Your task to perform on an android device: Open wifi settings Image 0: 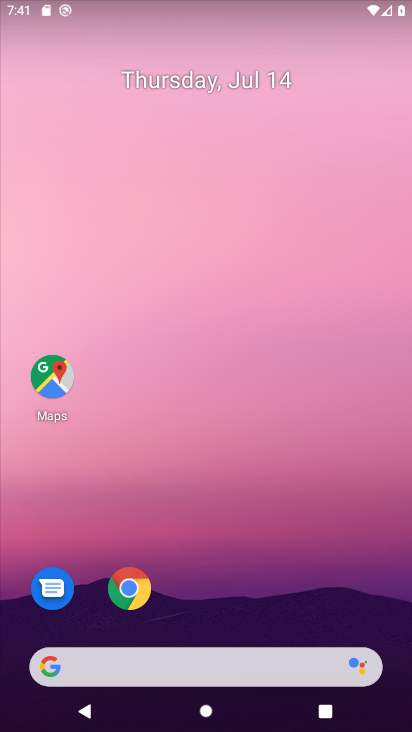
Step 0: drag from (292, 575) to (354, 44)
Your task to perform on an android device: Open wifi settings Image 1: 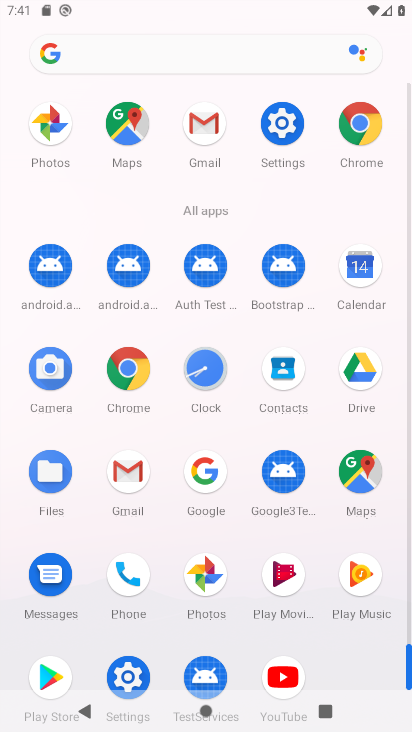
Step 1: click (285, 129)
Your task to perform on an android device: Open wifi settings Image 2: 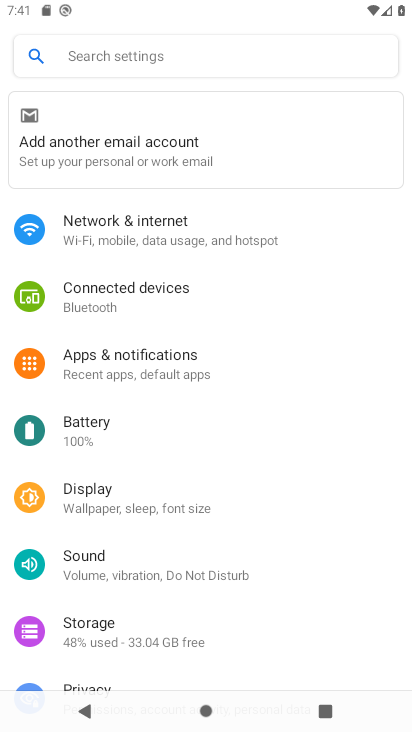
Step 2: drag from (335, 453) to (343, 381)
Your task to perform on an android device: Open wifi settings Image 3: 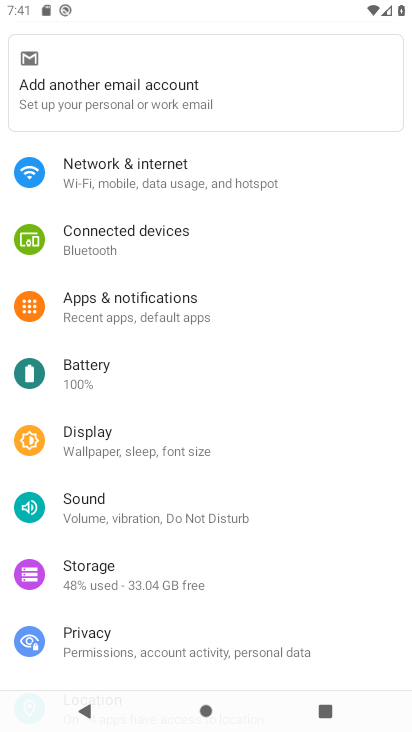
Step 3: drag from (335, 501) to (336, 409)
Your task to perform on an android device: Open wifi settings Image 4: 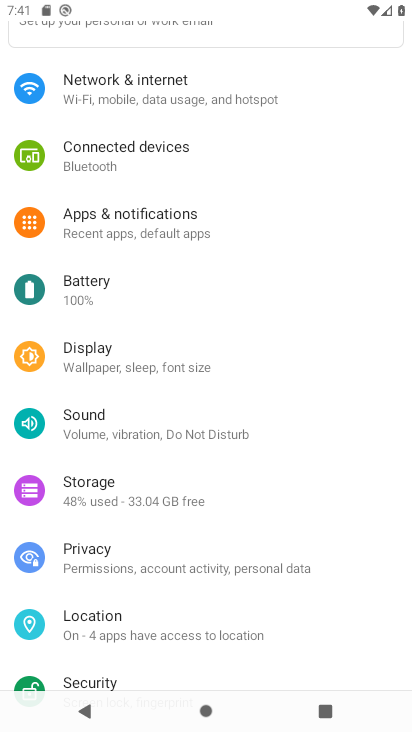
Step 4: drag from (334, 514) to (339, 420)
Your task to perform on an android device: Open wifi settings Image 5: 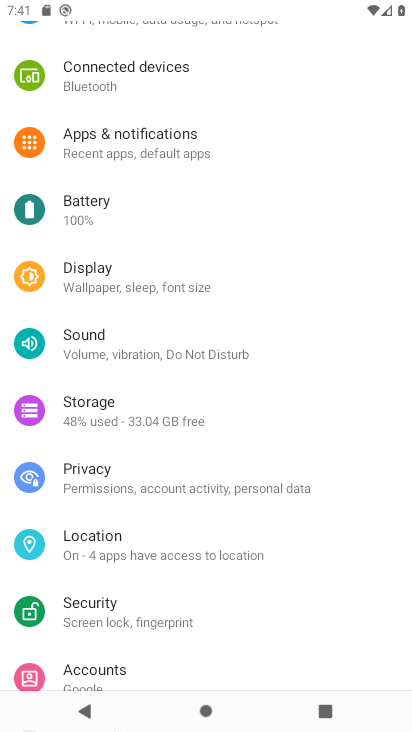
Step 5: drag from (354, 511) to (357, 408)
Your task to perform on an android device: Open wifi settings Image 6: 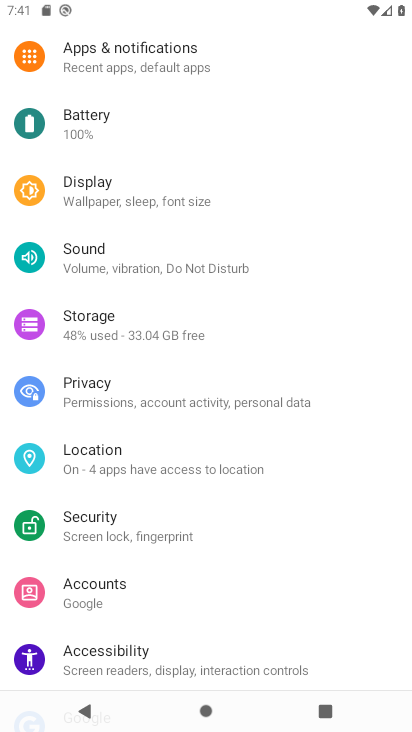
Step 6: drag from (330, 534) to (341, 426)
Your task to perform on an android device: Open wifi settings Image 7: 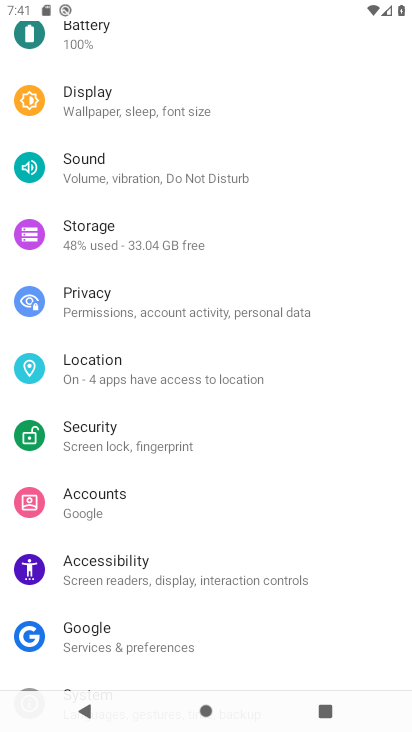
Step 7: drag from (332, 511) to (340, 365)
Your task to perform on an android device: Open wifi settings Image 8: 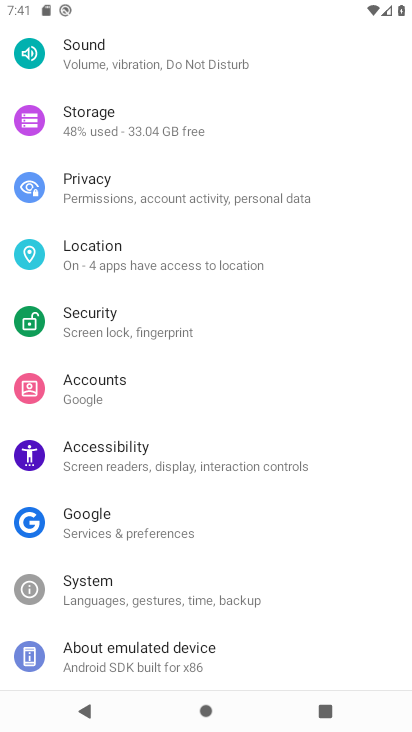
Step 8: drag from (330, 545) to (338, 457)
Your task to perform on an android device: Open wifi settings Image 9: 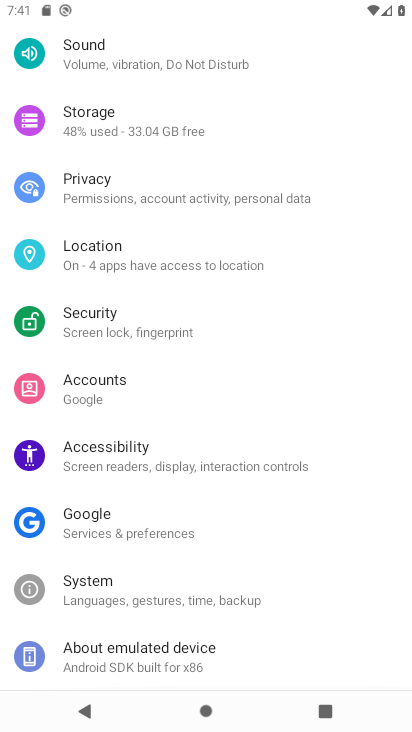
Step 9: drag from (345, 378) to (342, 446)
Your task to perform on an android device: Open wifi settings Image 10: 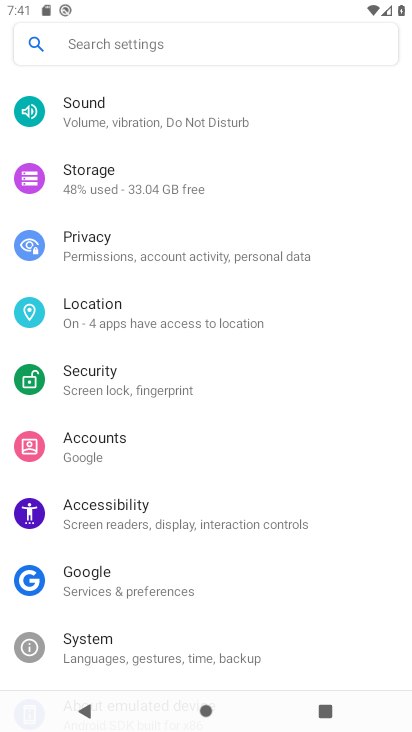
Step 10: drag from (338, 359) to (338, 409)
Your task to perform on an android device: Open wifi settings Image 11: 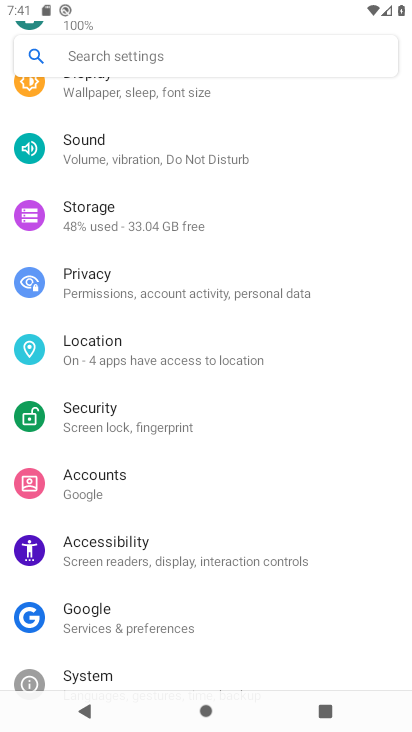
Step 11: drag from (338, 361) to (341, 404)
Your task to perform on an android device: Open wifi settings Image 12: 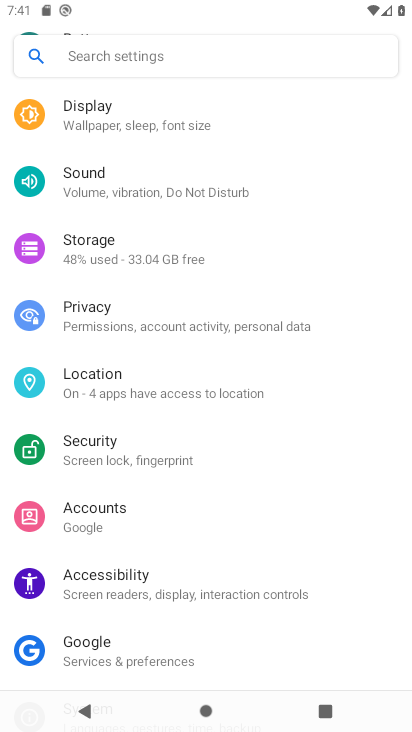
Step 12: drag from (338, 361) to (339, 419)
Your task to perform on an android device: Open wifi settings Image 13: 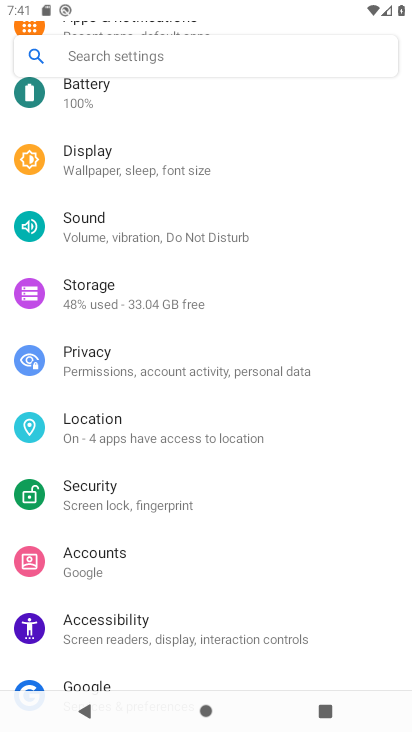
Step 13: drag from (338, 377) to (339, 420)
Your task to perform on an android device: Open wifi settings Image 14: 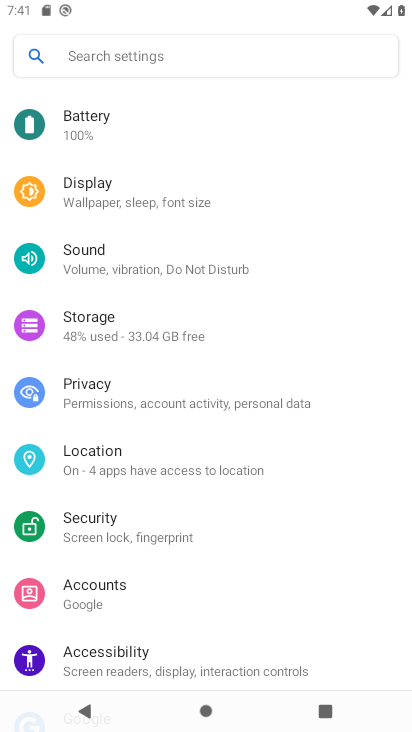
Step 14: drag from (339, 370) to (339, 431)
Your task to perform on an android device: Open wifi settings Image 15: 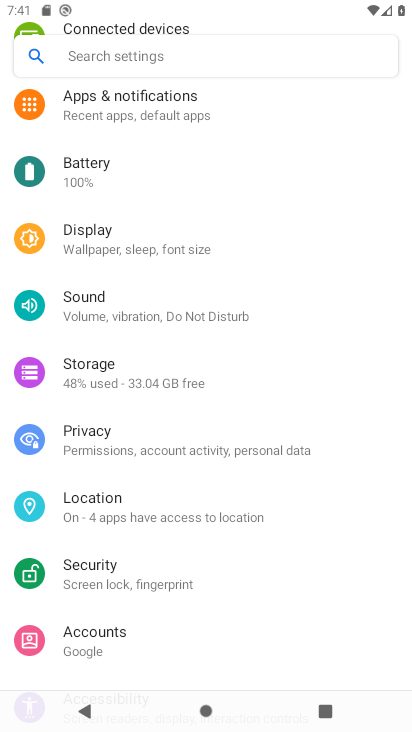
Step 15: drag from (339, 360) to (338, 420)
Your task to perform on an android device: Open wifi settings Image 16: 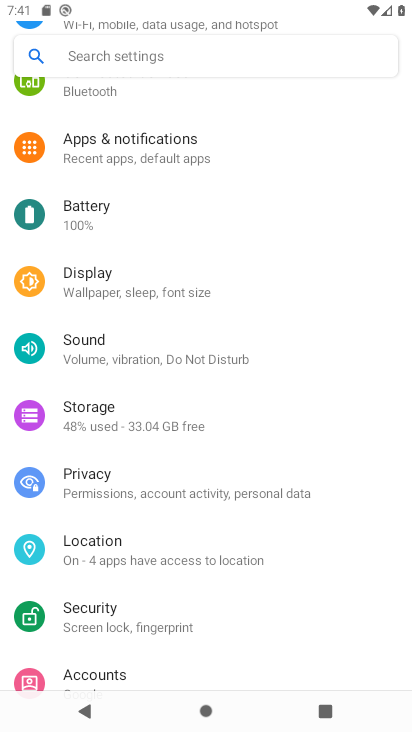
Step 16: drag from (340, 376) to (340, 432)
Your task to perform on an android device: Open wifi settings Image 17: 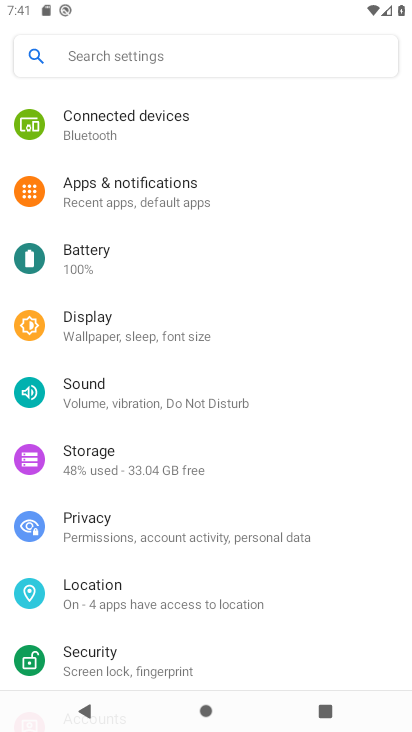
Step 17: drag from (342, 367) to (342, 424)
Your task to perform on an android device: Open wifi settings Image 18: 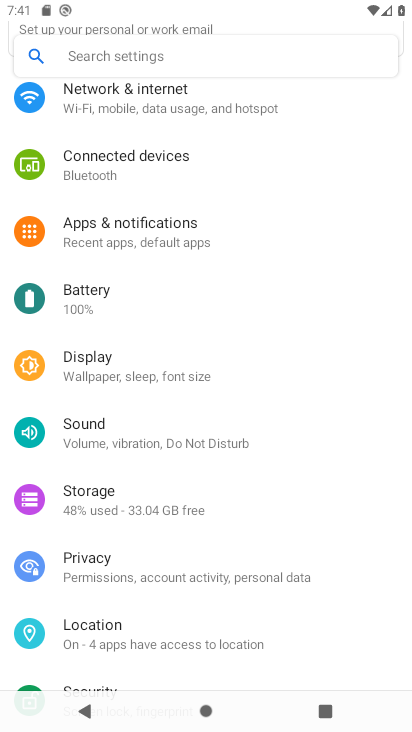
Step 18: drag from (346, 376) to (341, 440)
Your task to perform on an android device: Open wifi settings Image 19: 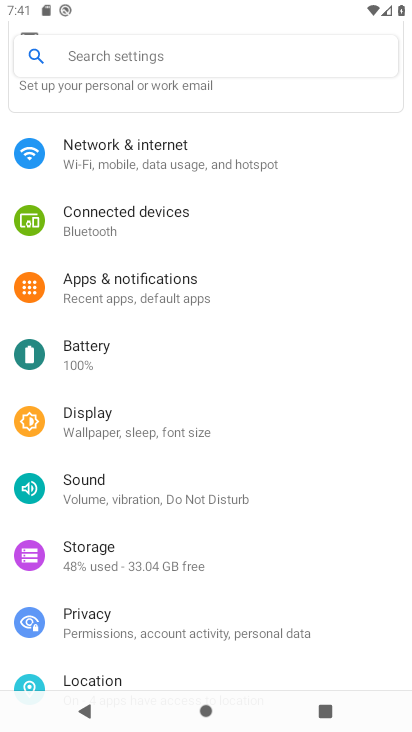
Step 19: drag from (335, 362) to (333, 423)
Your task to perform on an android device: Open wifi settings Image 20: 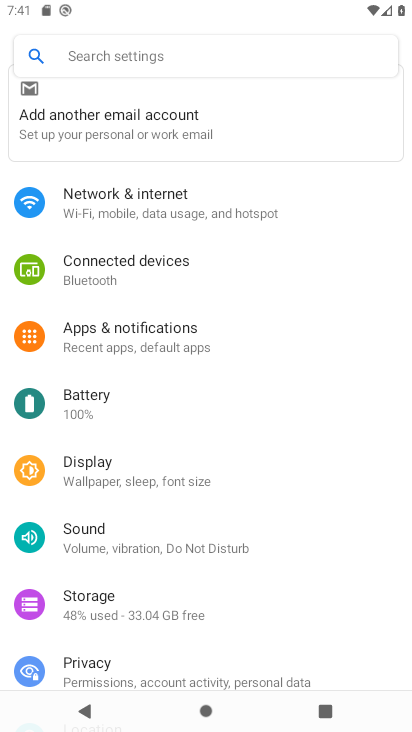
Step 20: drag from (338, 320) to (336, 407)
Your task to perform on an android device: Open wifi settings Image 21: 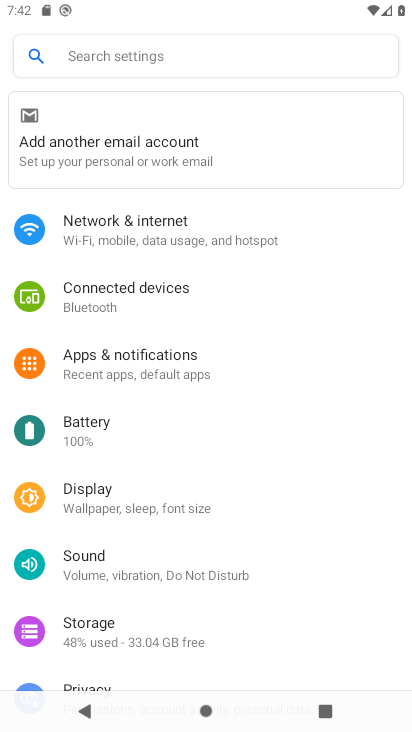
Step 21: click (290, 233)
Your task to perform on an android device: Open wifi settings Image 22: 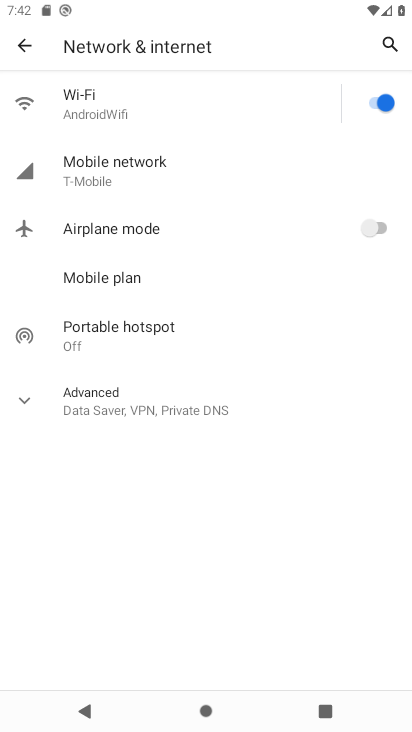
Step 22: click (137, 100)
Your task to perform on an android device: Open wifi settings Image 23: 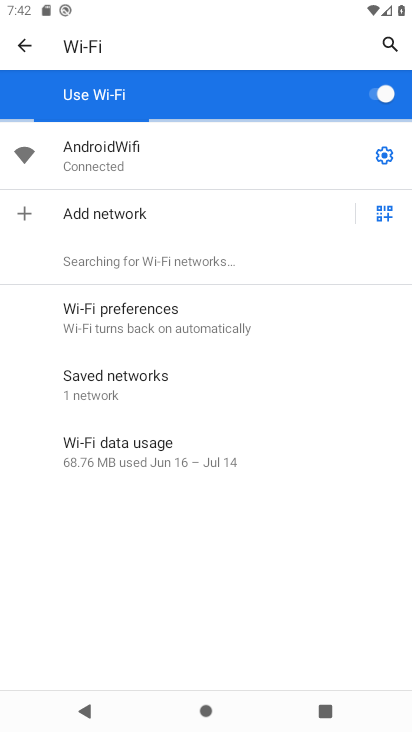
Step 23: task complete